Your task to perform on an android device: Search for top rated pizza restaurants on Maps Image 0: 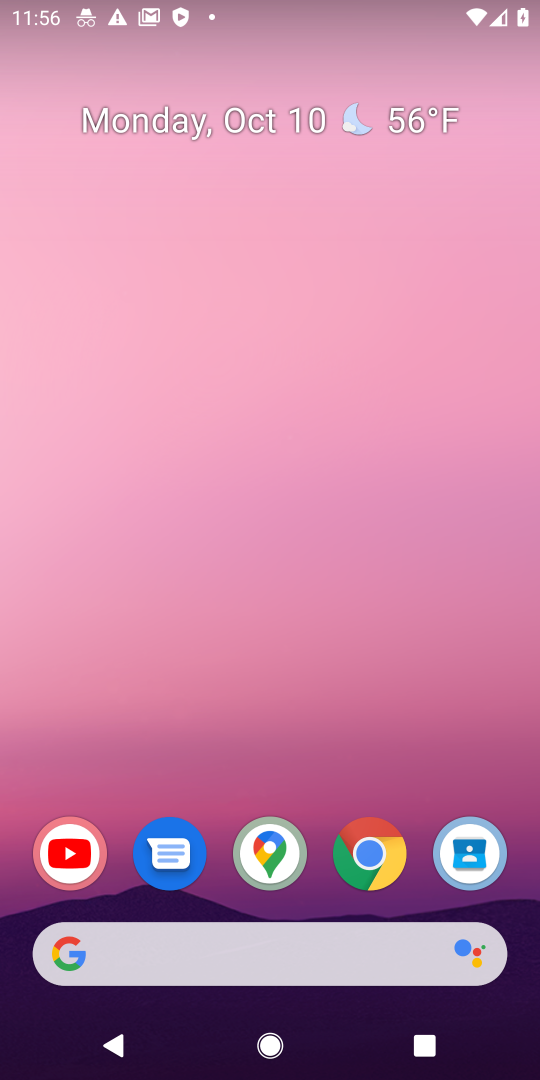
Step 0: press home button
Your task to perform on an android device: Search for top rated pizza restaurants on Maps Image 1: 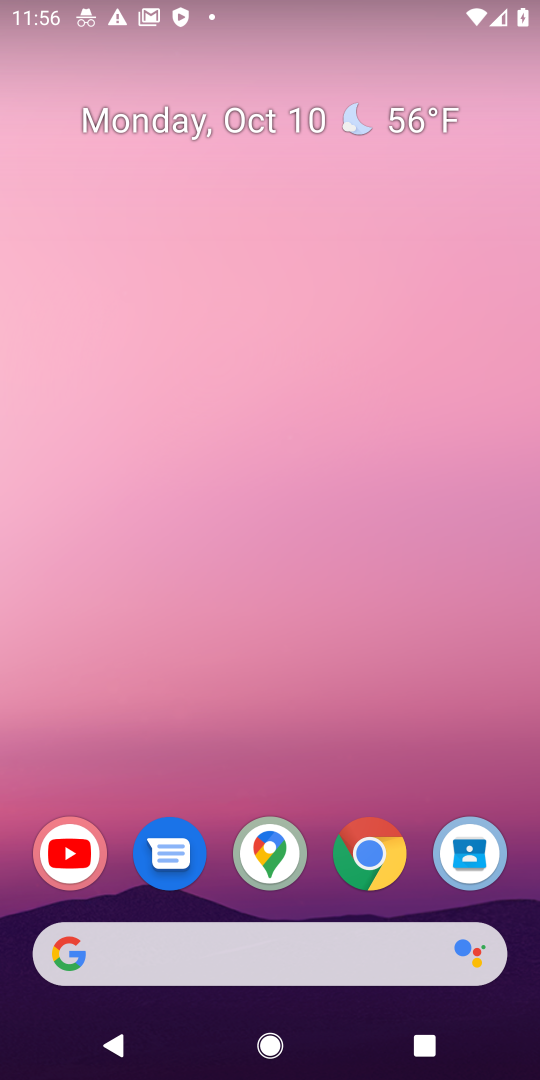
Step 1: drag from (459, 727) to (457, 183)
Your task to perform on an android device: Search for top rated pizza restaurants on Maps Image 2: 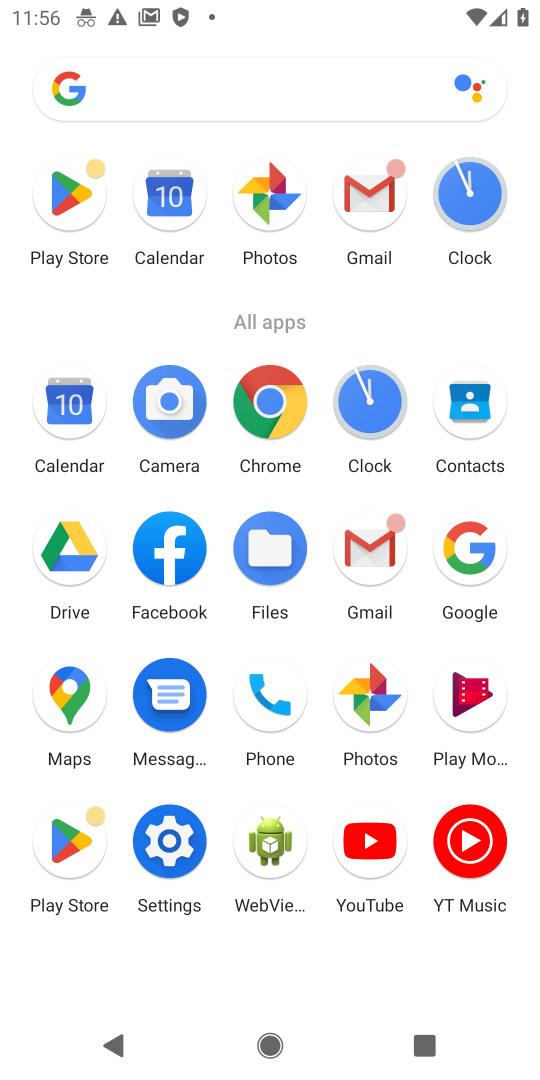
Step 2: click (64, 711)
Your task to perform on an android device: Search for top rated pizza restaurants on Maps Image 3: 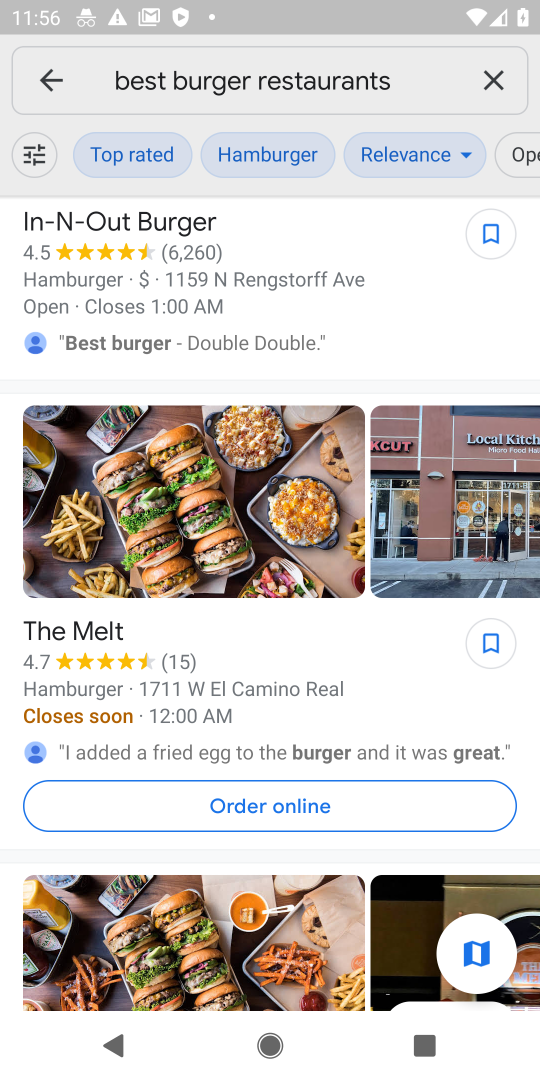
Step 3: press back button
Your task to perform on an android device: Search for top rated pizza restaurants on Maps Image 4: 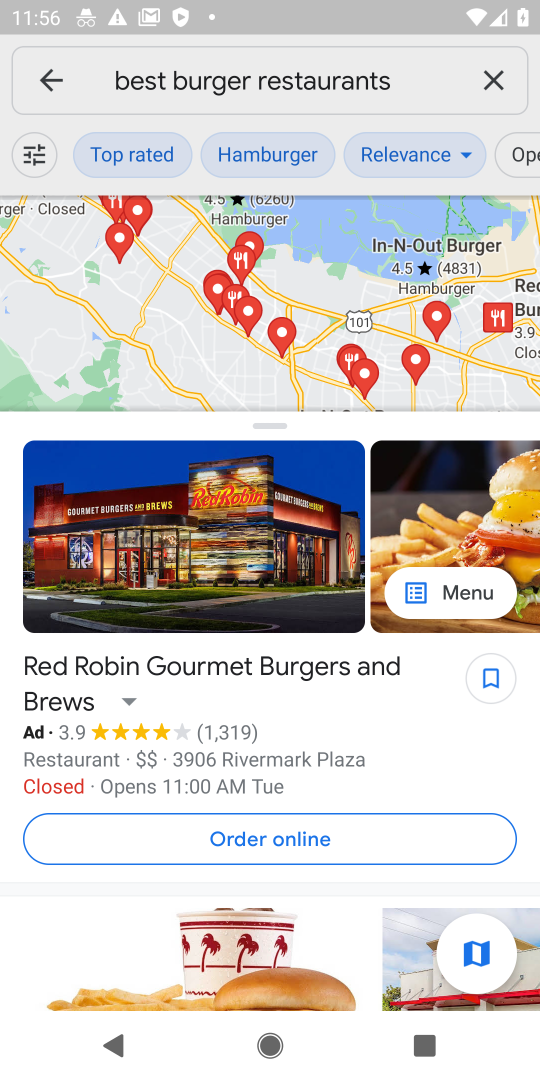
Step 4: press back button
Your task to perform on an android device: Search for top rated pizza restaurants on Maps Image 5: 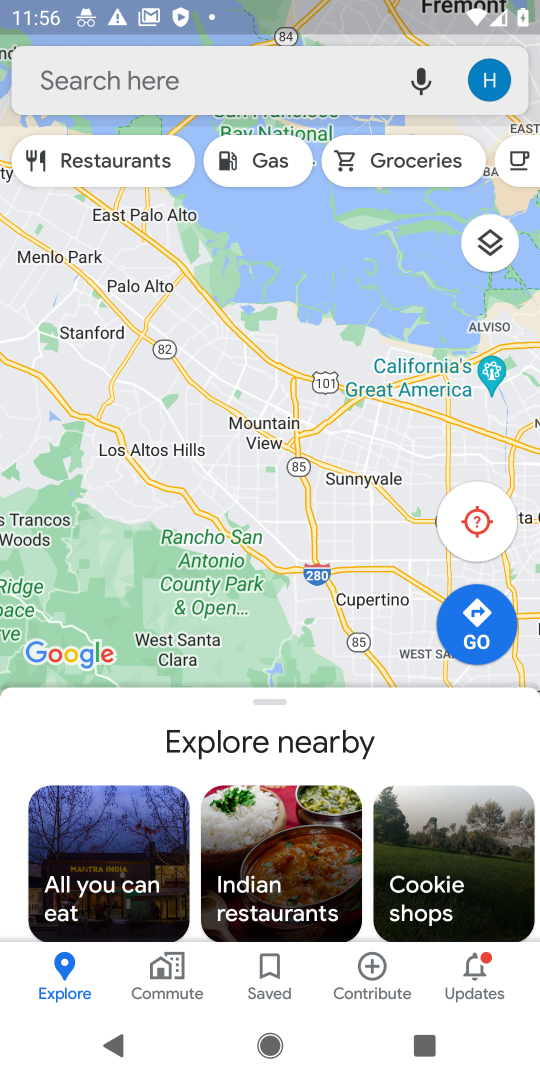
Step 5: click (219, 86)
Your task to perform on an android device: Search for top rated pizza restaurants on Maps Image 6: 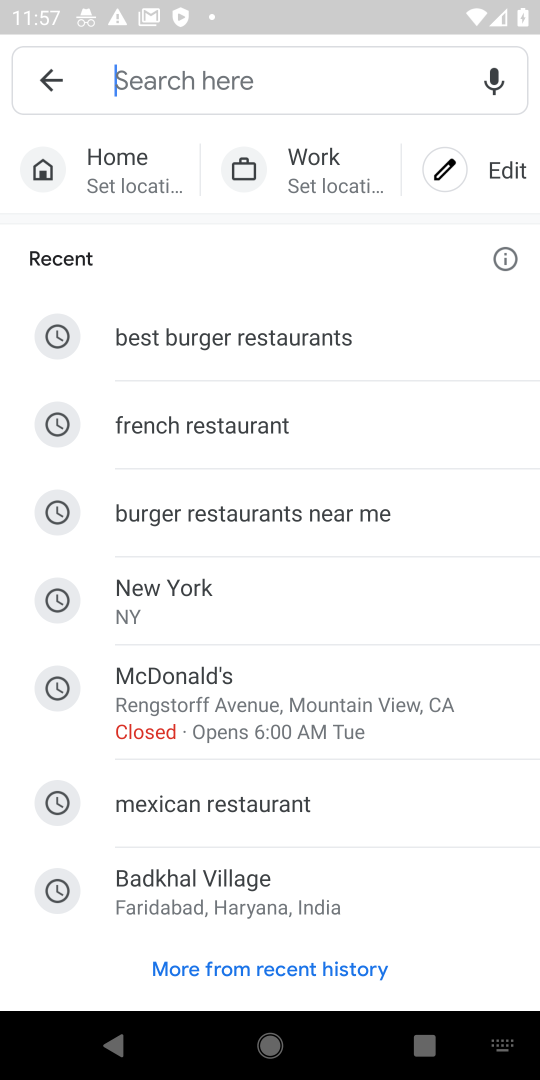
Step 6: type " pizza restaurants"
Your task to perform on an android device: Search for top rated pizza restaurants on Maps Image 7: 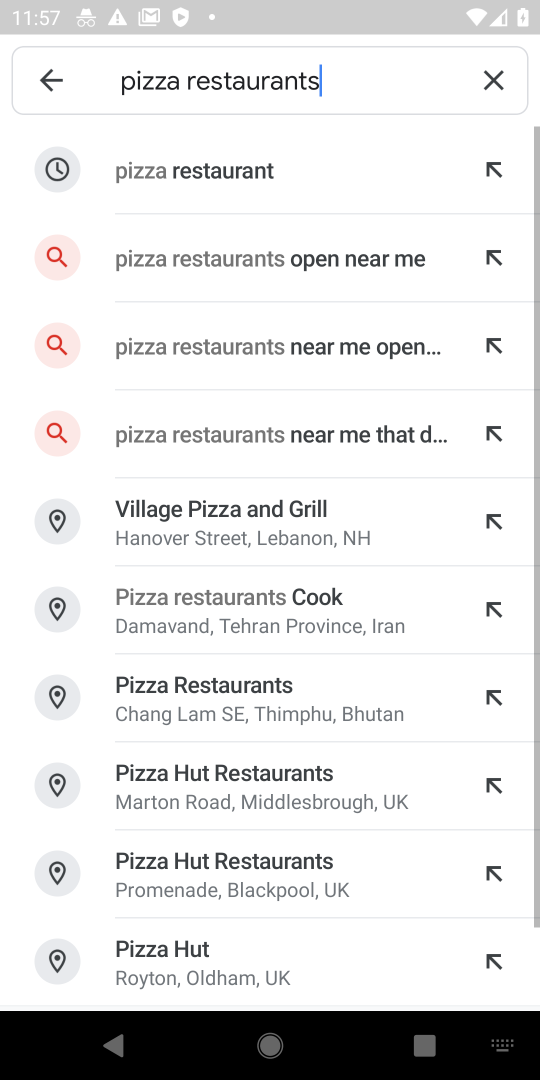
Step 7: press enter
Your task to perform on an android device: Search for top rated pizza restaurants on Maps Image 8: 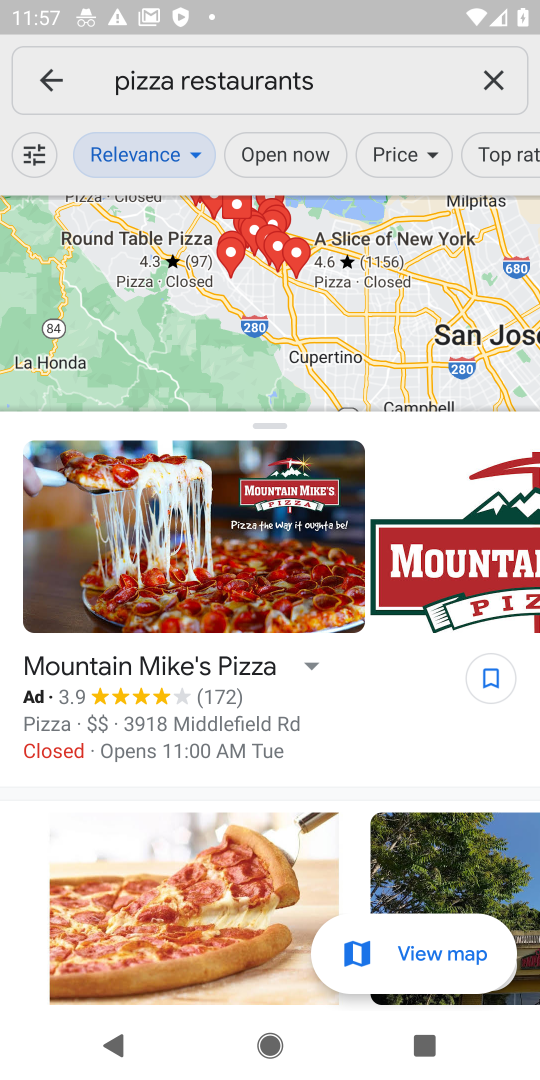
Step 8: task complete